Your task to perform on an android device: turn on the 12-hour format for clock Image 0: 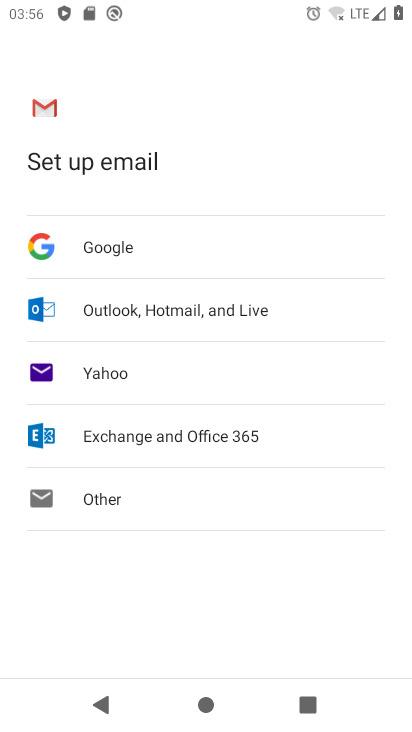
Step 0: press home button
Your task to perform on an android device: turn on the 12-hour format for clock Image 1: 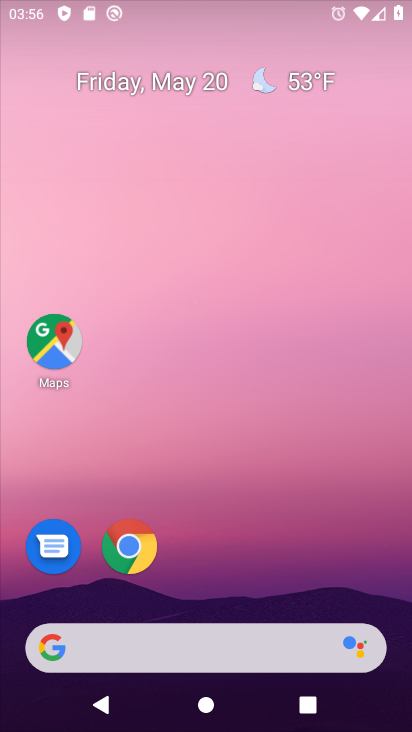
Step 1: drag from (305, 542) to (334, 137)
Your task to perform on an android device: turn on the 12-hour format for clock Image 2: 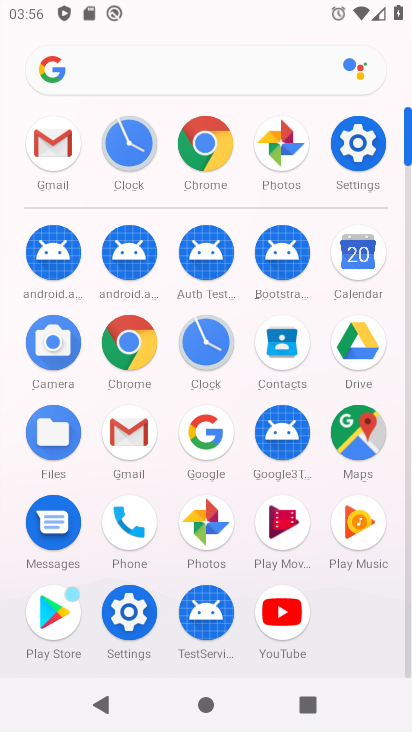
Step 2: click (214, 335)
Your task to perform on an android device: turn on the 12-hour format for clock Image 3: 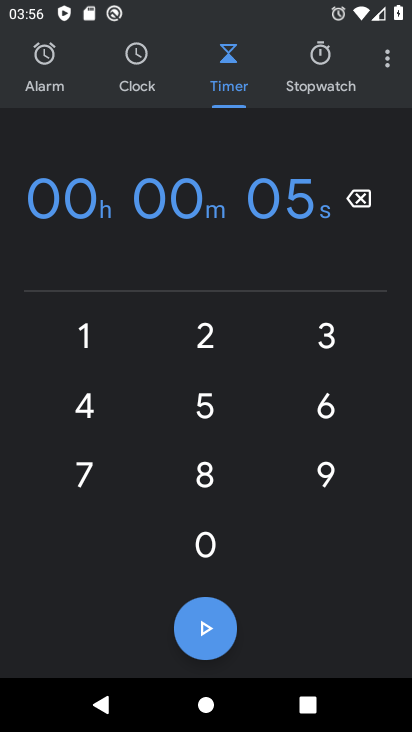
Step 3: drag from (387, 46) to (300, 127)
Your task to perform on an android device: turn on the 12-hour format for clock Image 4: 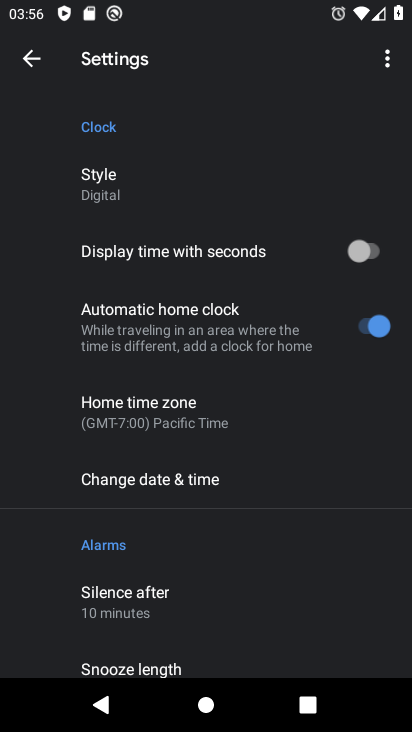
Step 4: click (192, 478)
Your task to perform on an android device: turn on the 12-hour format for clock Image 5: 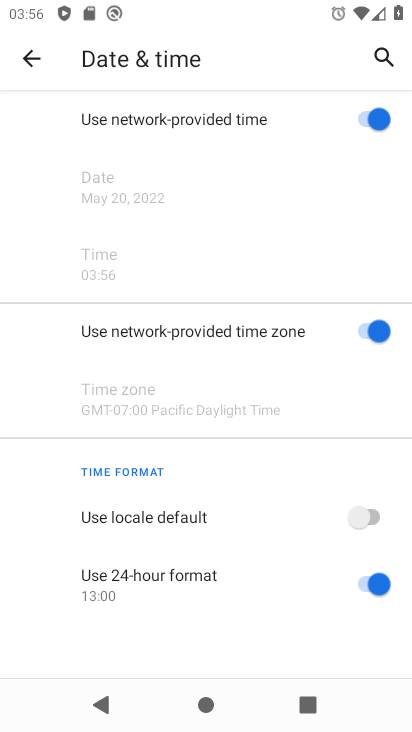
Step 5: click (345, 510)
Your task to perform on an android device: turn on the 12-hour format for clock Image 6: 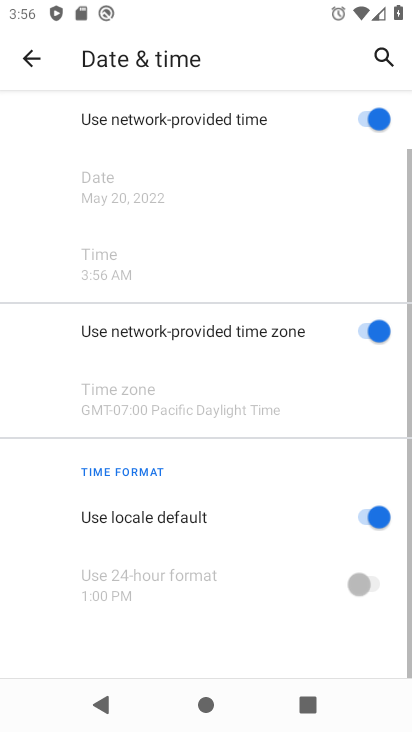
Step 6: task complete